Your task to perform on an android device: What's on my calendar tomorrow? Image 0: 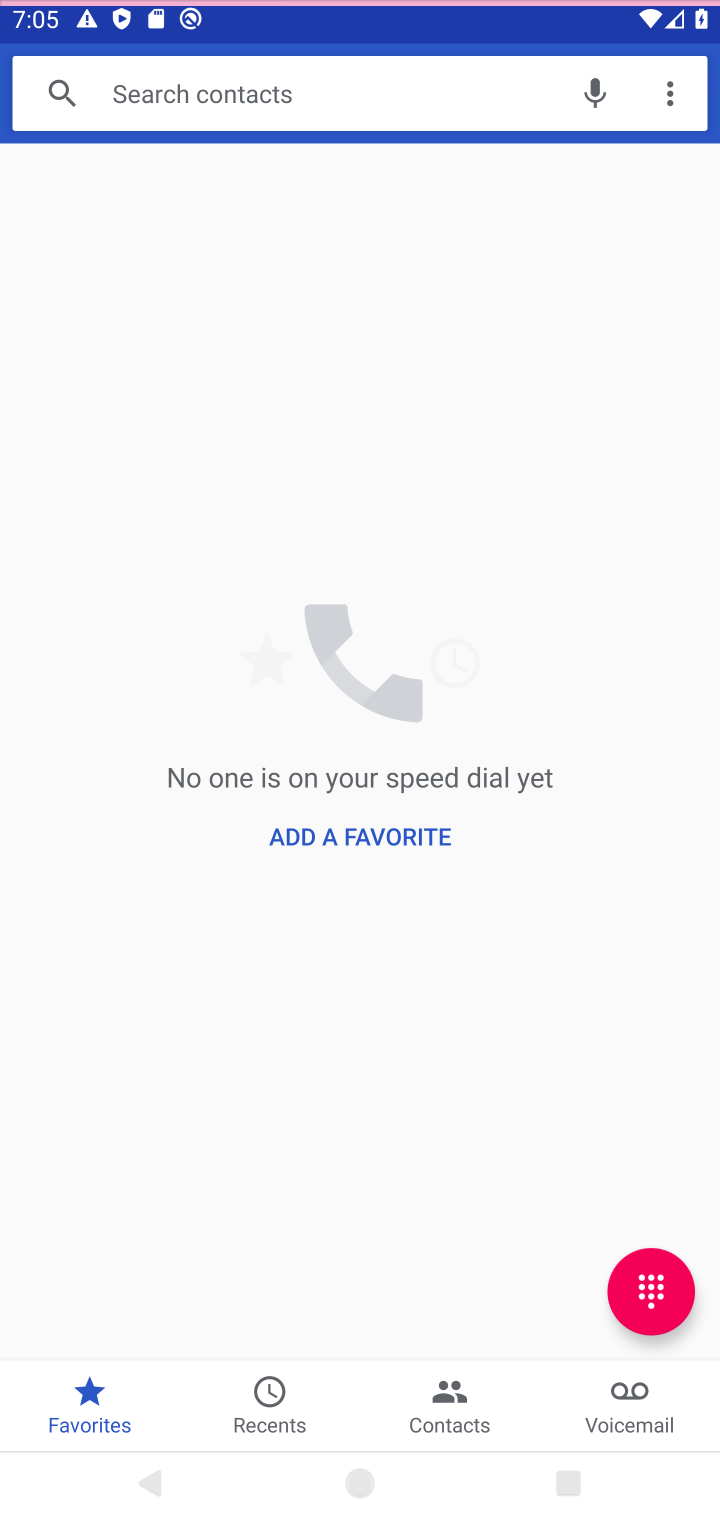
Step 0: press home button
Your task to perform on an android device: What's on my calendar tomorrow? Image 1: 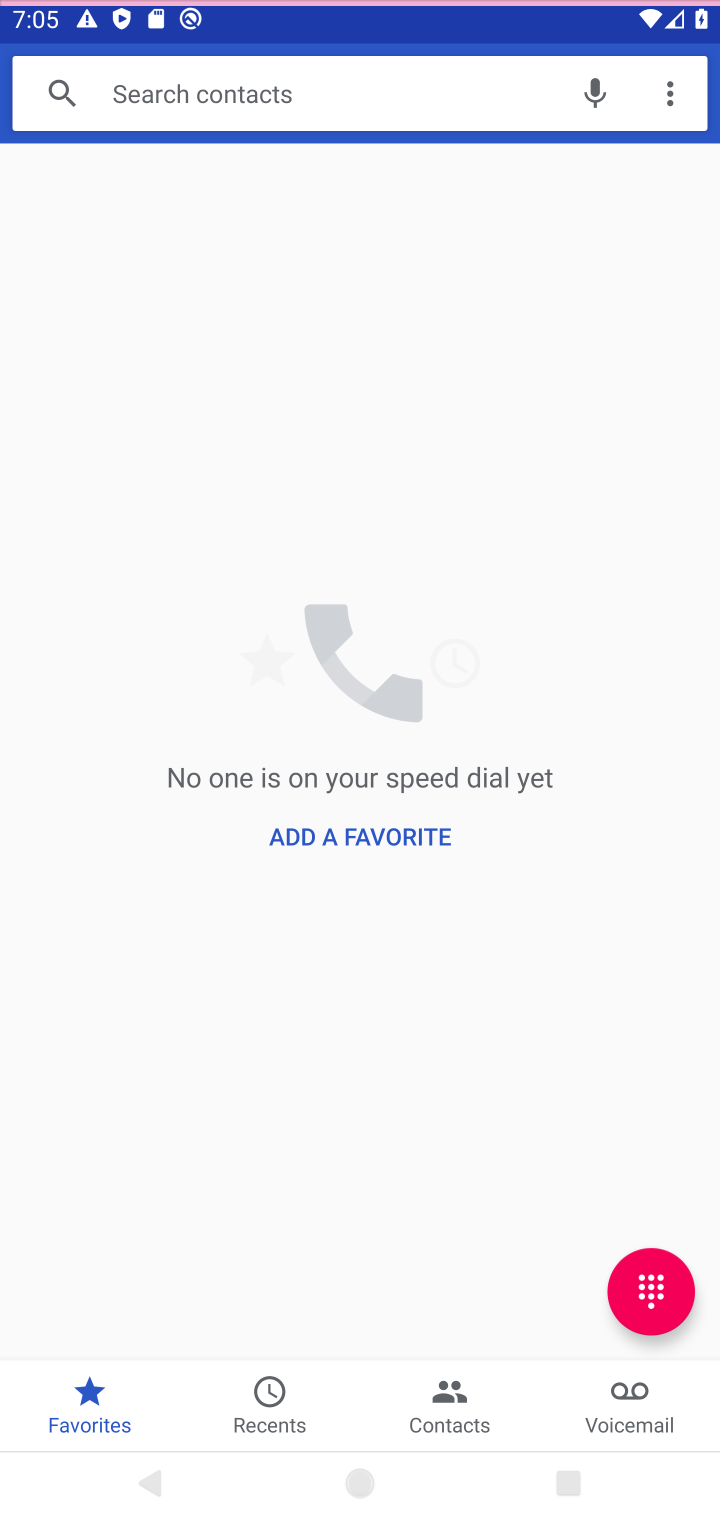
Step 1: click (355, 746)
Your task to perform on an android device: What's on my calendar tomorrow? Image 2: 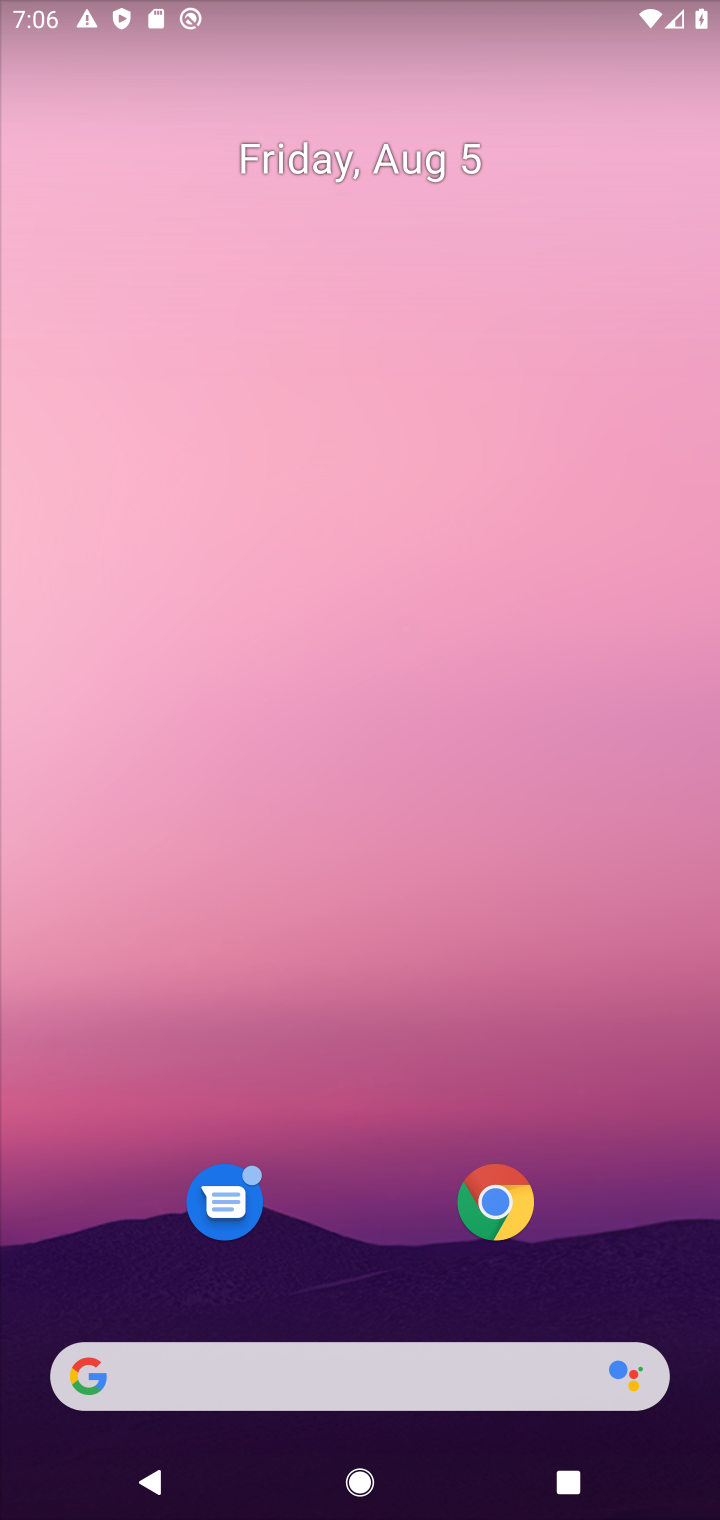
Step 2: press home button
Your task to perform on an android device: What's on my calendar tomorrow? Image 3: 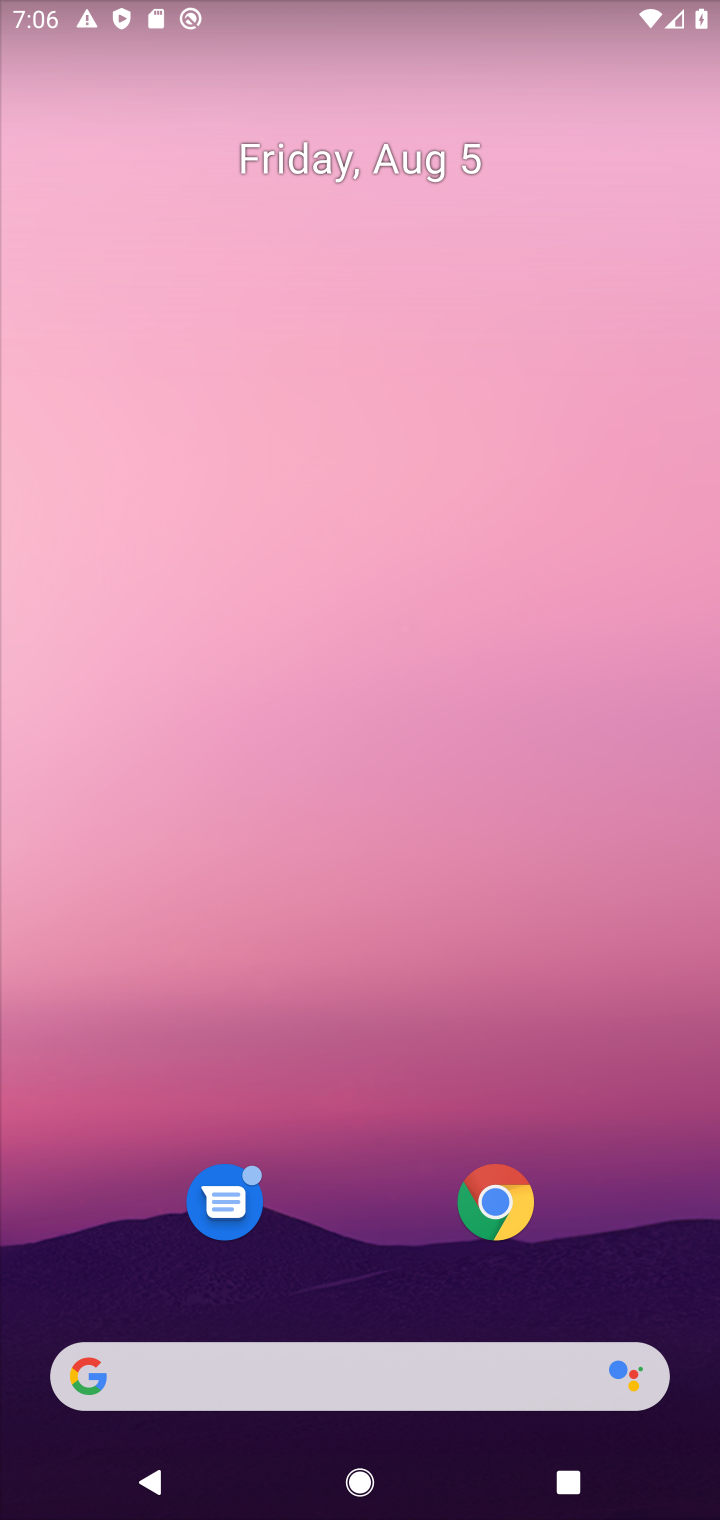
Step 3: press home button
Your task to perform on an android device: What's on my calendar tomorrow? Image 4: 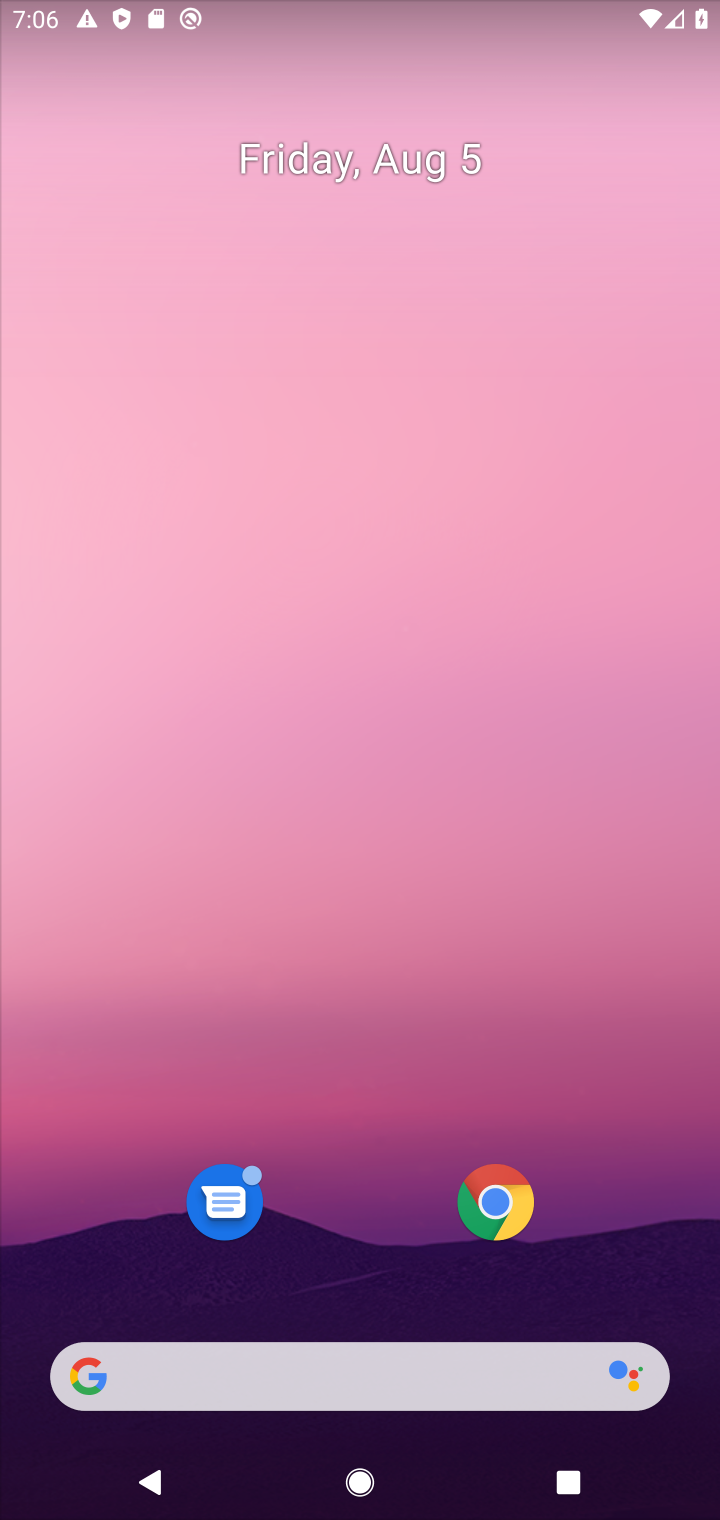
Step 4: drag from (394, 1092) to (539, 224)
Your task to perform on an android device: What's on my calendar tomorrow? Image 5: 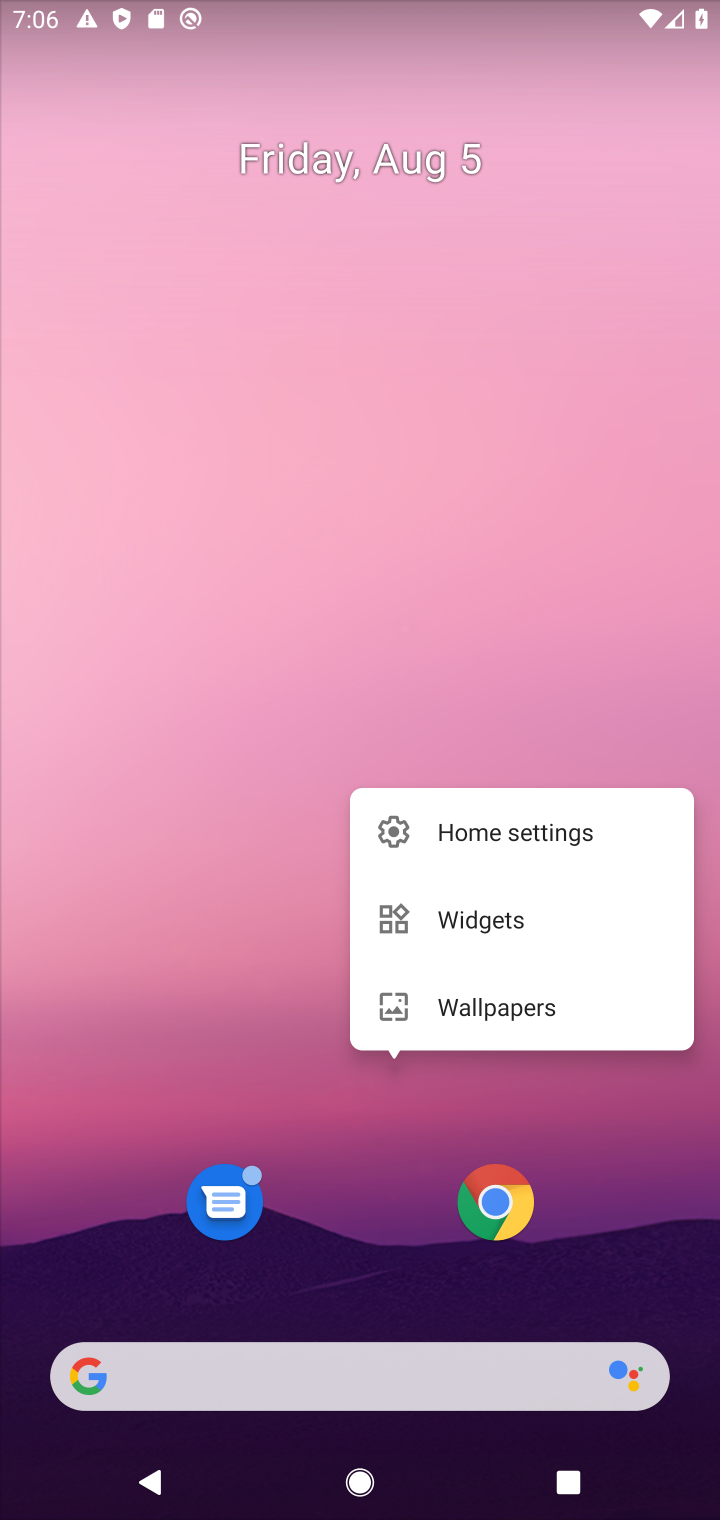
Step 5: drag from (319, 924) to (422, 422)
Your task to perform on an android device: What's on my calendar tomorrow? Image 6: 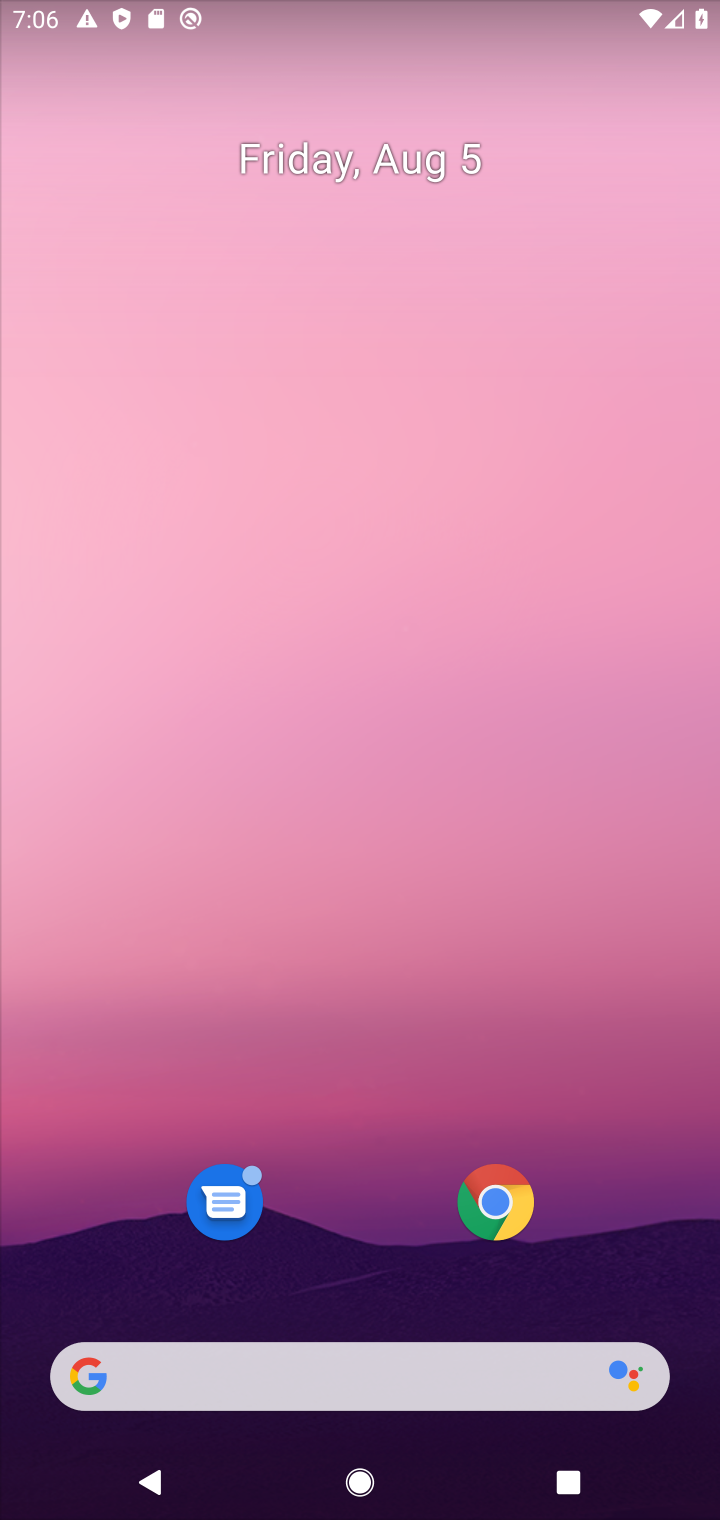
Step 6: drag from (376, 1157) to (395, 70)
Your task to perform on an android device: What's on my calendar tomorrow? Image 7: 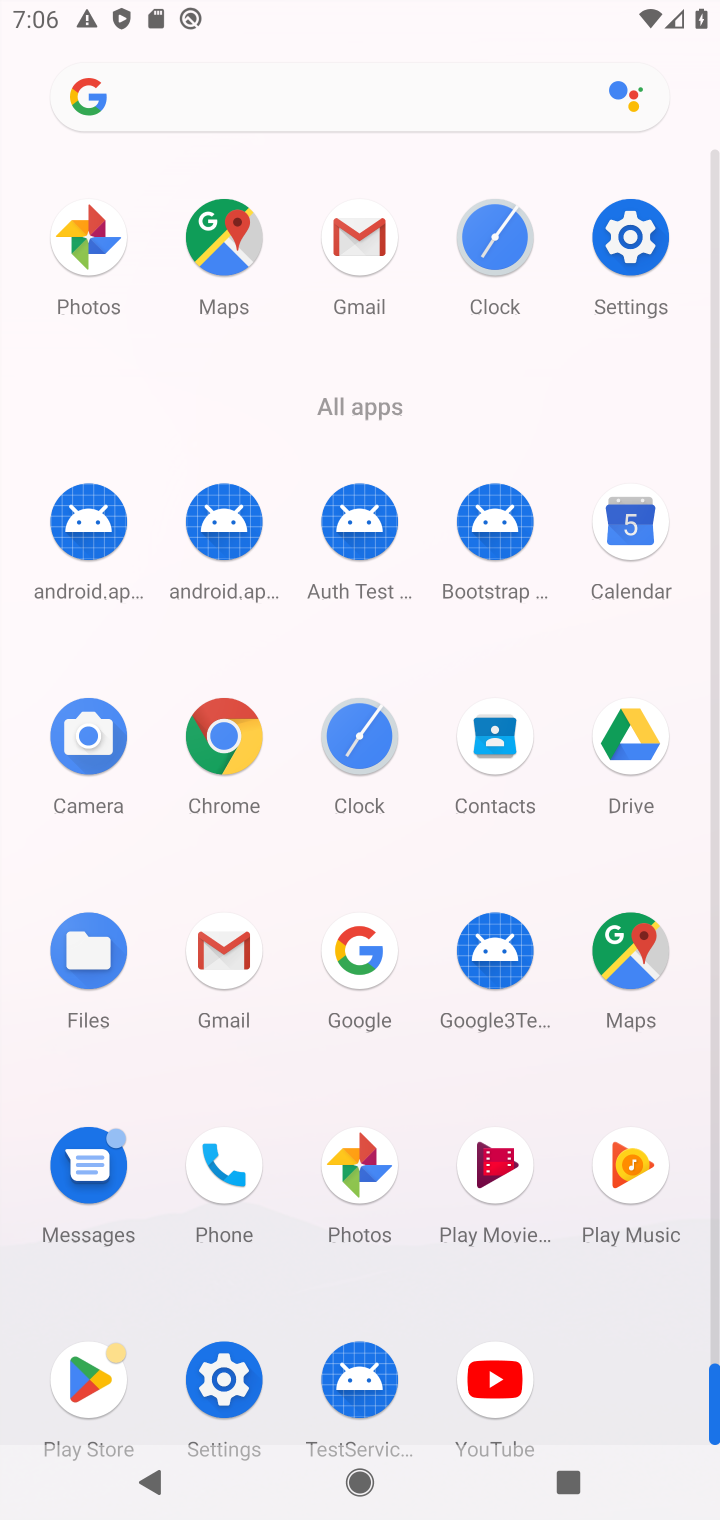
Step 7: click (612, 520)
Your task to perform on an android device: What's on my calendar tomorrow? Image 8: 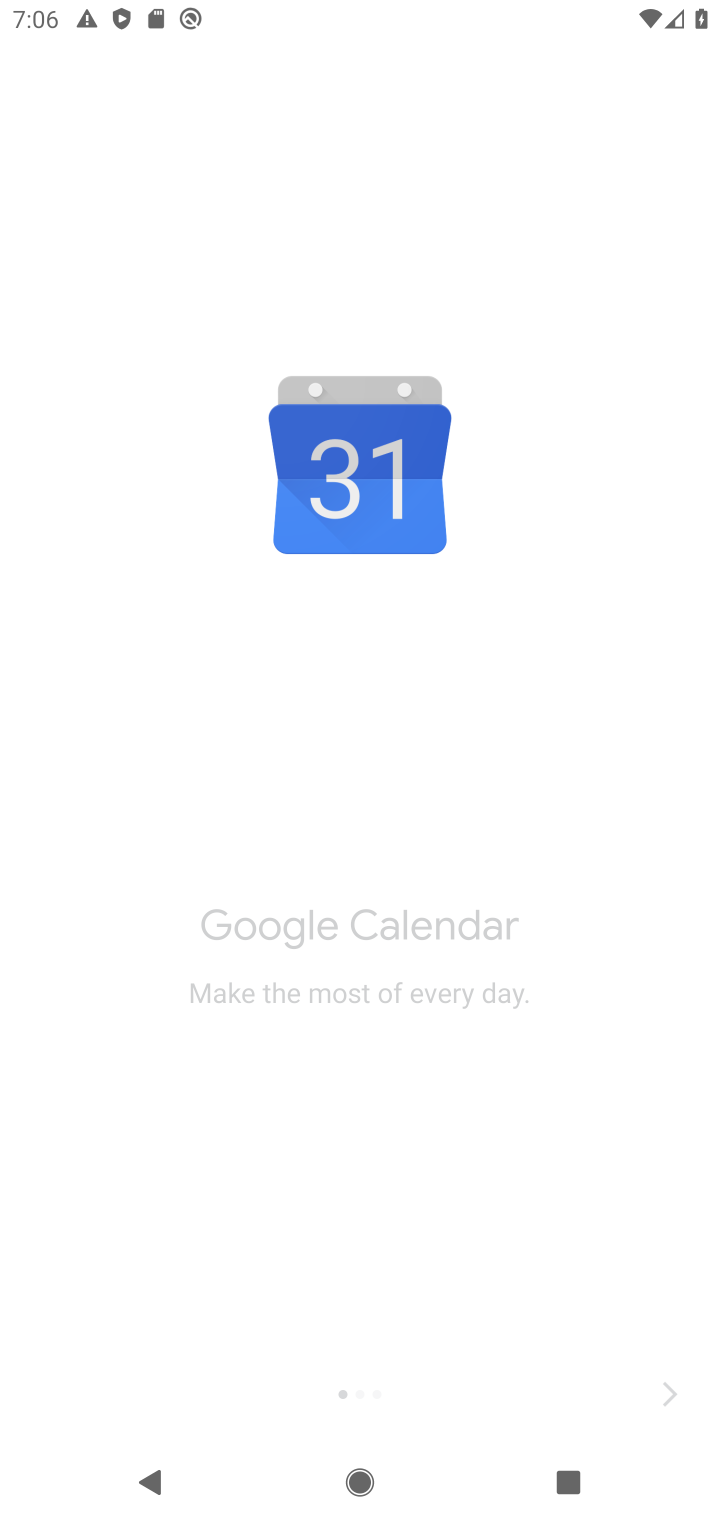
Step 8: click (616, 511)
Your task to perform on an android device: What's on my calendar tomorrow? Image 9: 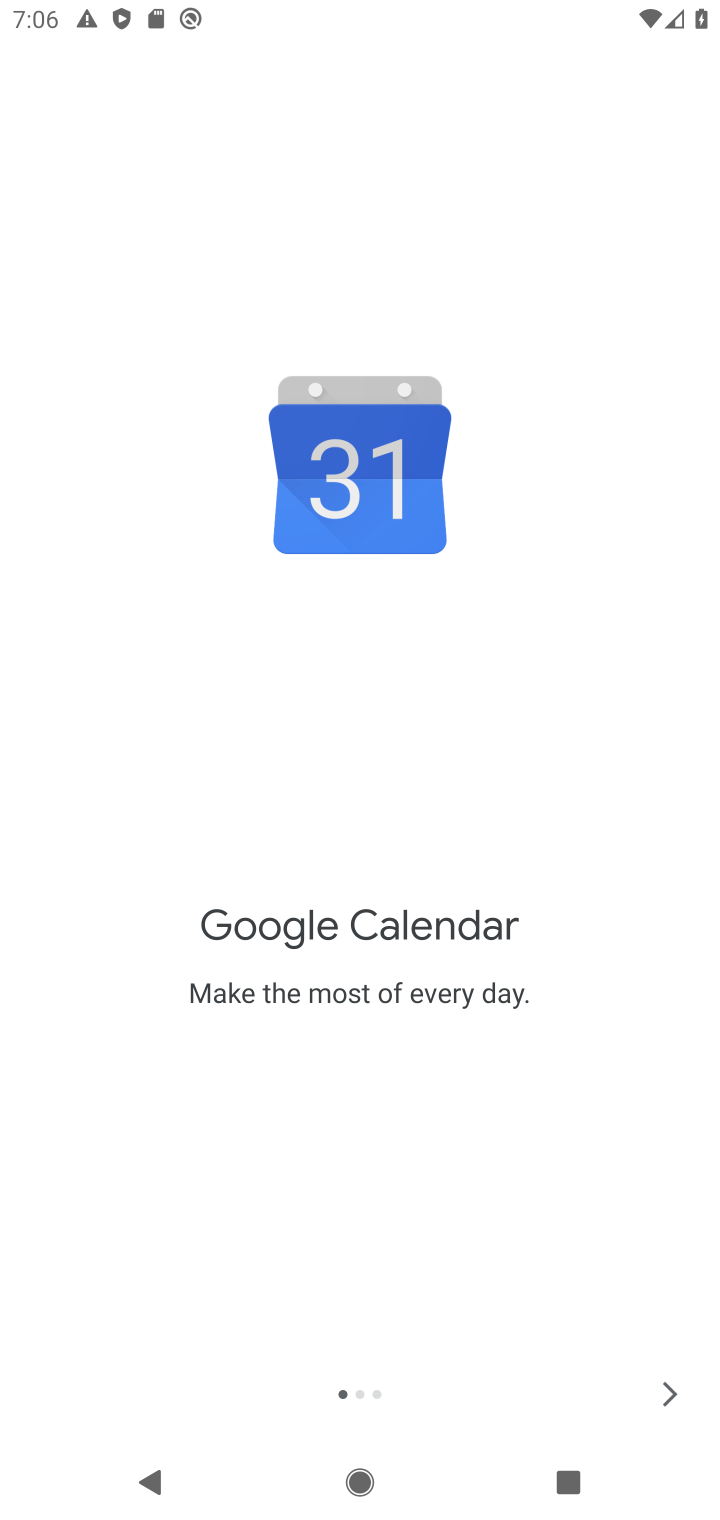
Step 9: click (658, 1393)
Your task to perform on an android device: What's on my calendar tomorrow? Image 10: 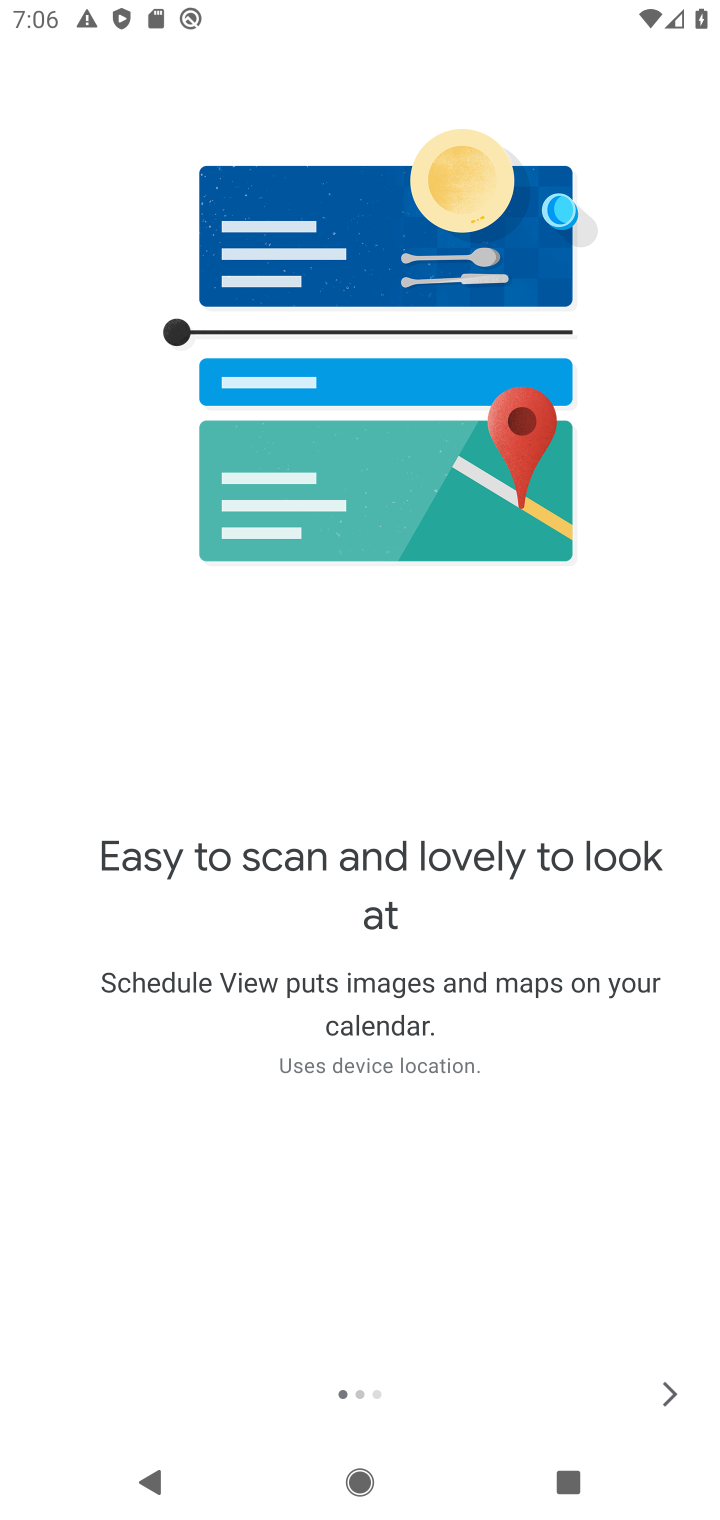
Step 10: click (660, 1391)
Your task to perform on an android device: What's on my calendar tomorrow? Image 11: 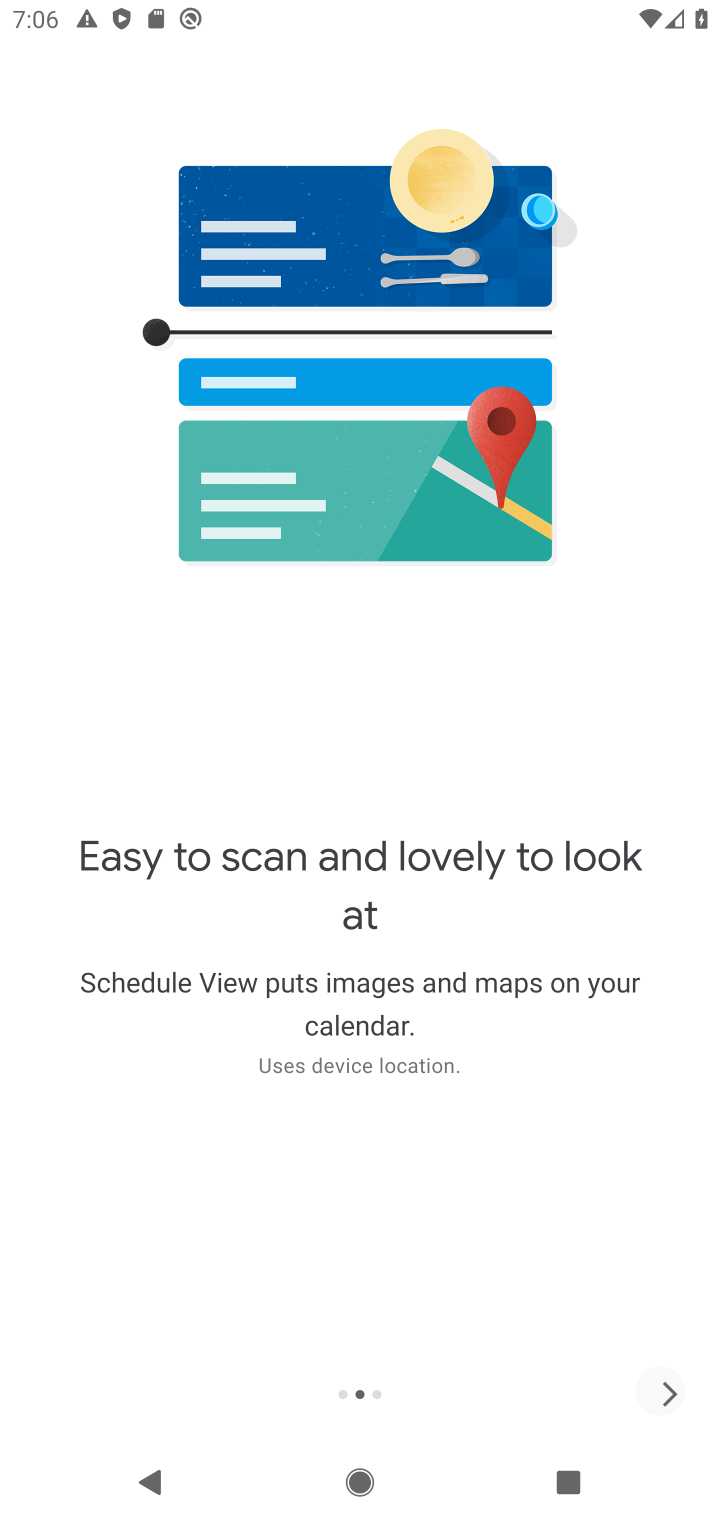
Step 11: click (660, 1391)
Your task to perform on an android device: What's on my calendar tomorrow? Image 12: 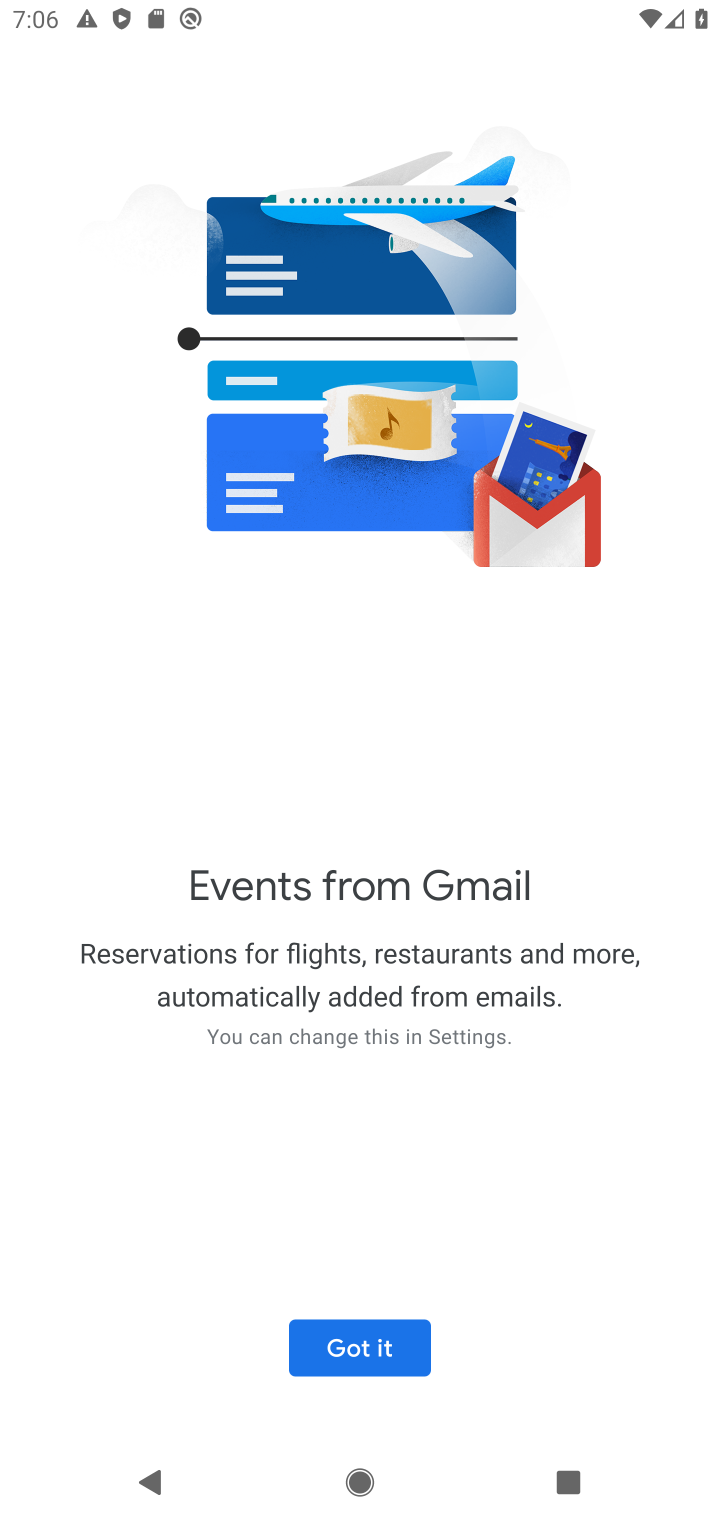
Step 12: click (335, 1315)
Your task to perform on an android device: What's on my calendar tomorrow? Image 13: 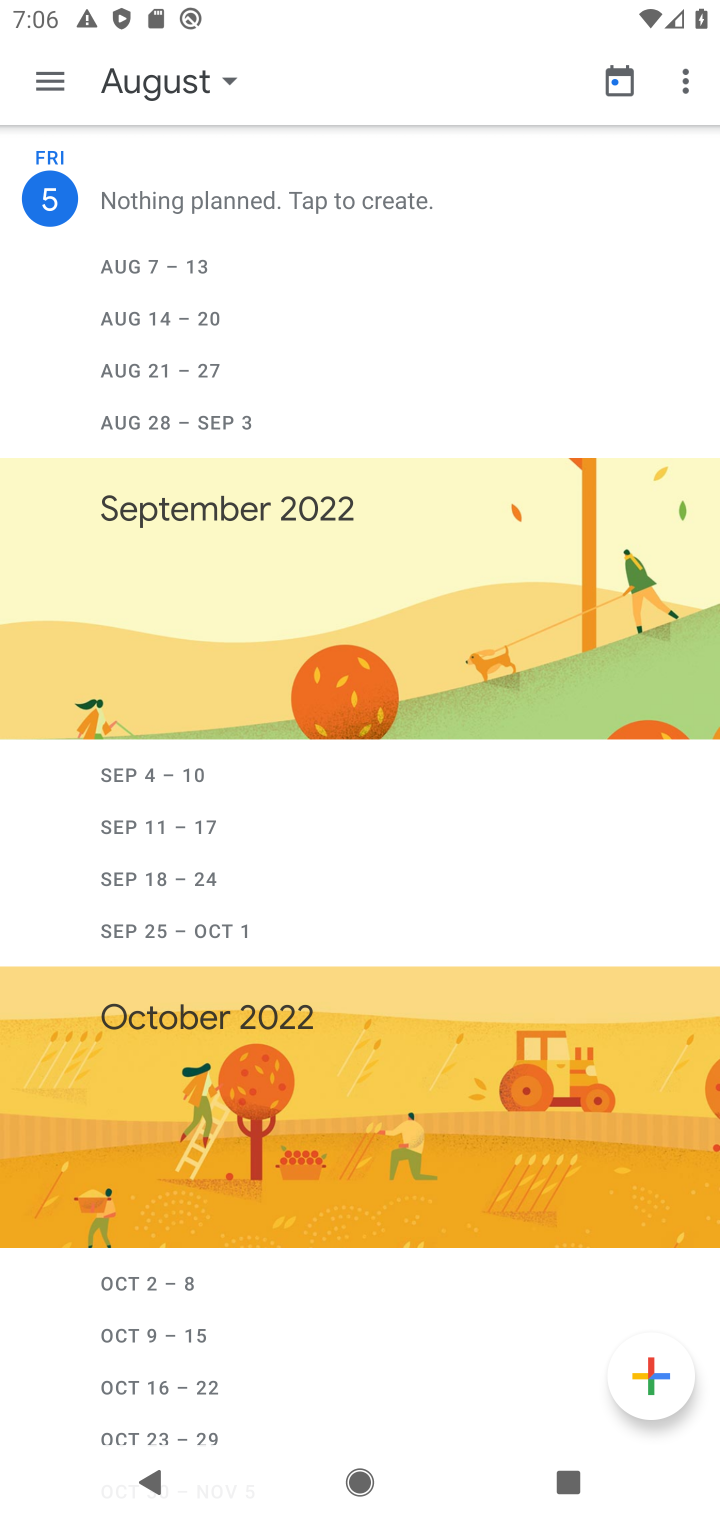
Step 13: click (198, 82)
Your task to perform on an android device: What's on my calendar tomorrow? Image 14: 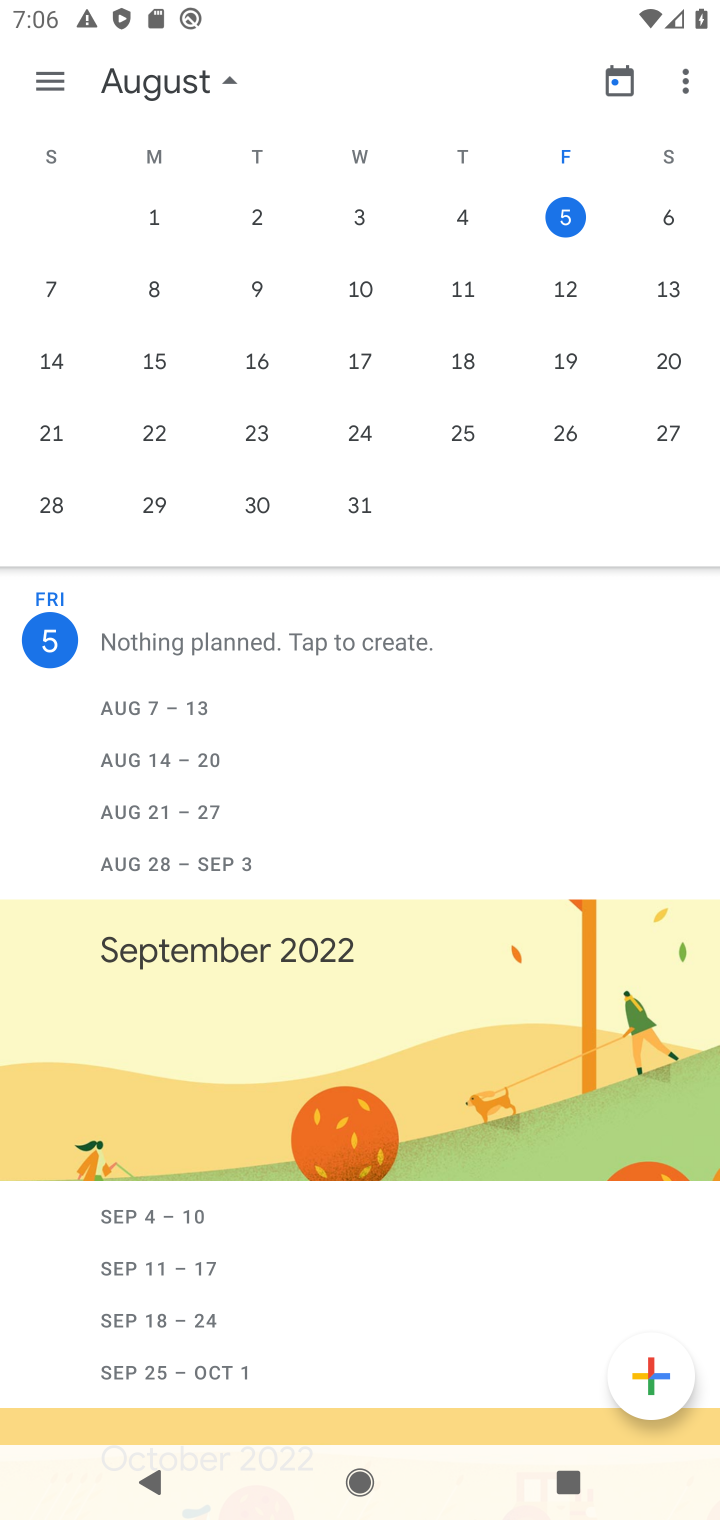
Step 14: click (669, 217)
Your task to perform on an android device: What's on my calendar tomorrow? Image 15: 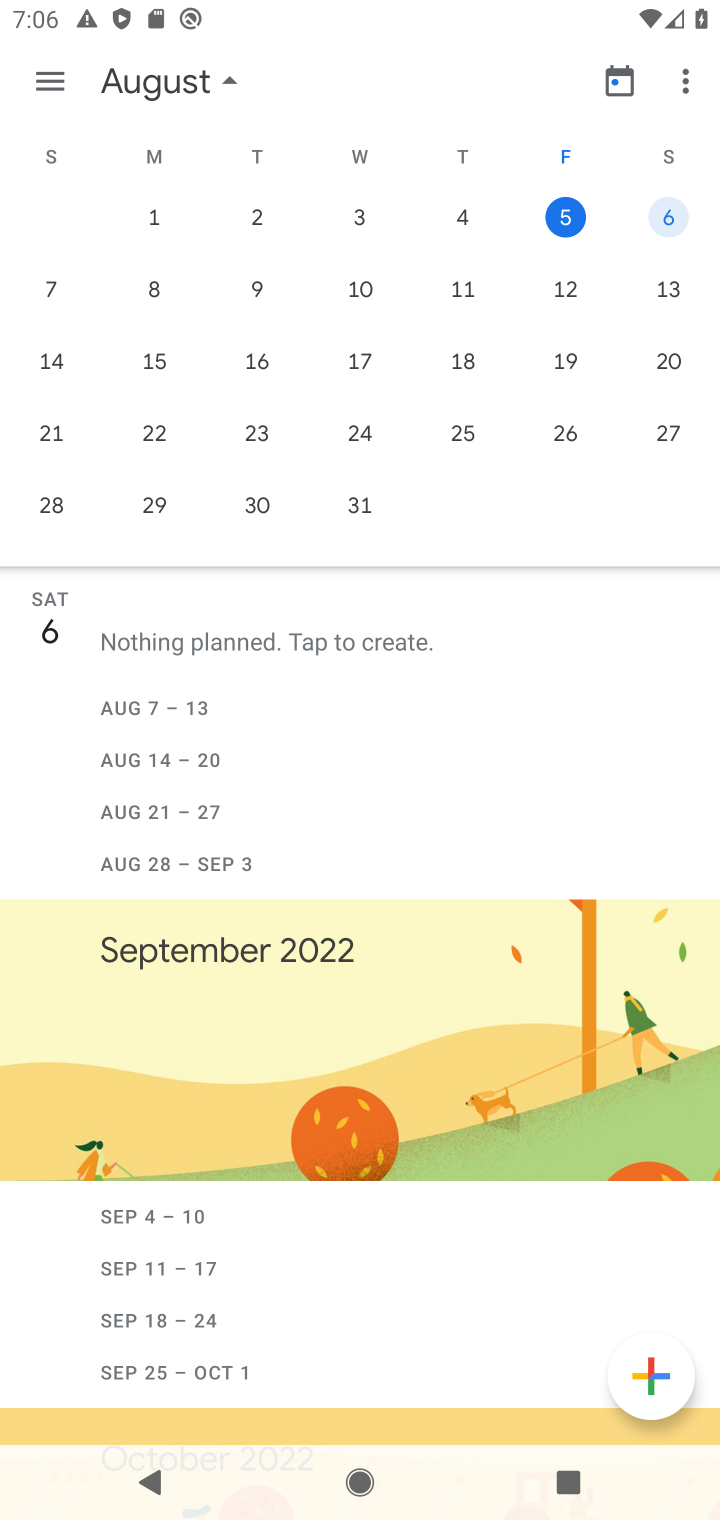
Step 15: task complete